Your task to perform on an android device: Open Google Chrome and open the bookmarks view Image 0: 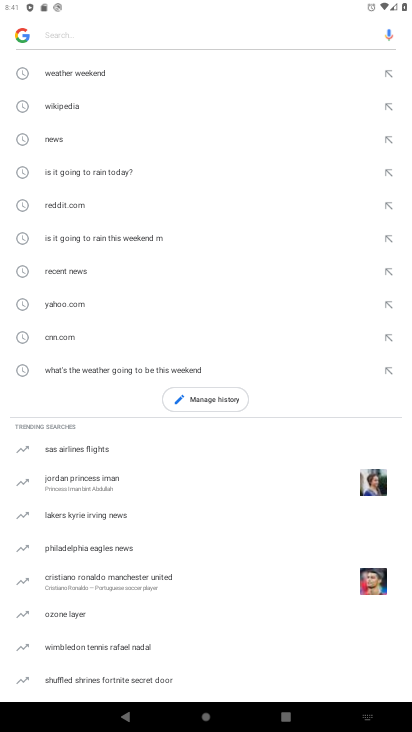
Step 0: press home button
Your task to perform on an android device: Open Google Chrome and open the bookmarks view Image 1: 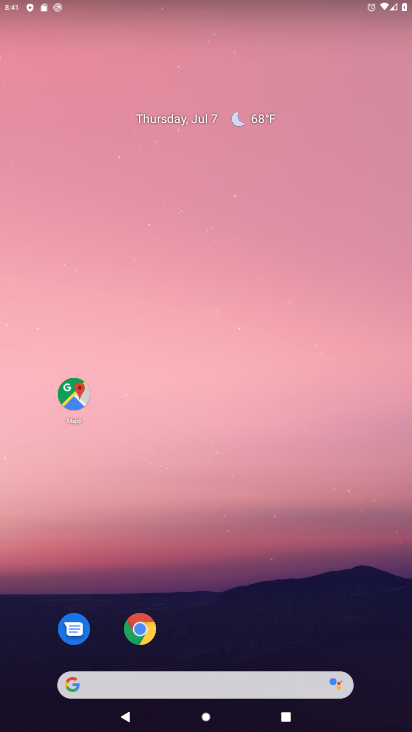
Step 1: click (145, 626)
Your task to perform on an android device: Open Google Chrome and open the bookmarks view Image 2: 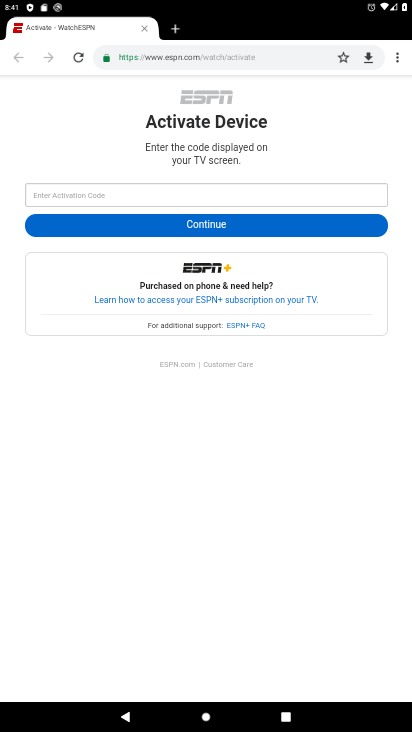
Step 2: click (393, 56)
Your task to perform on an android device: Open Google Chrome and open the bookmarks view Image 3: 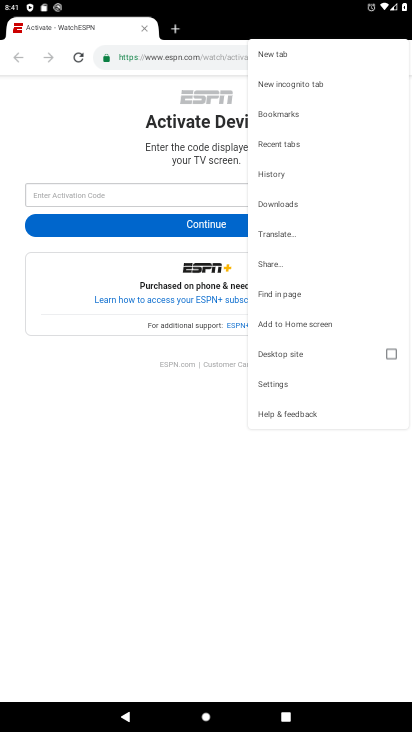
Step 3: click (288, 115)
Your task to perform on an android device: Open Google Chrome and open the bookmarks view Image 4: 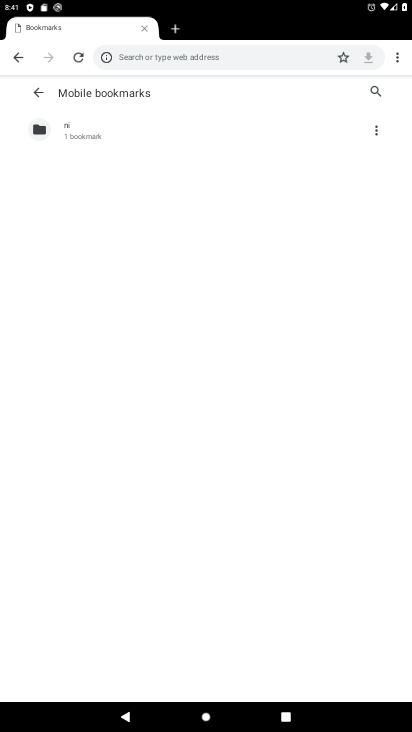
Step 4: click (129, 136)
Your task to perform on an android device: Open Google Chrome and open the bookmarks view Image 5: 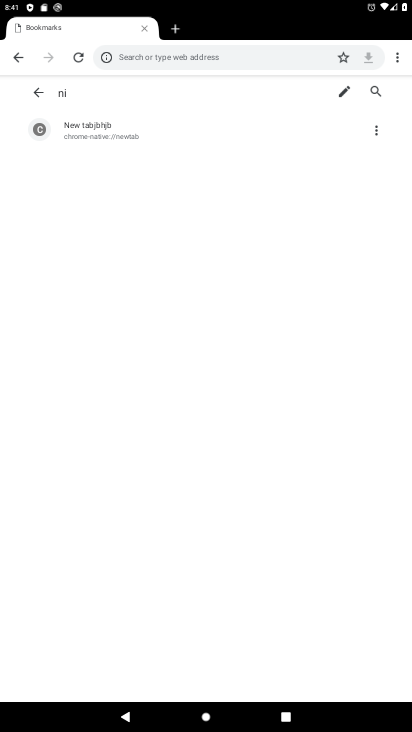
Step 5: task complete